Your task to perform on an android device: Open the calendar app, open the side menu, and click the "Day" option Image 0: 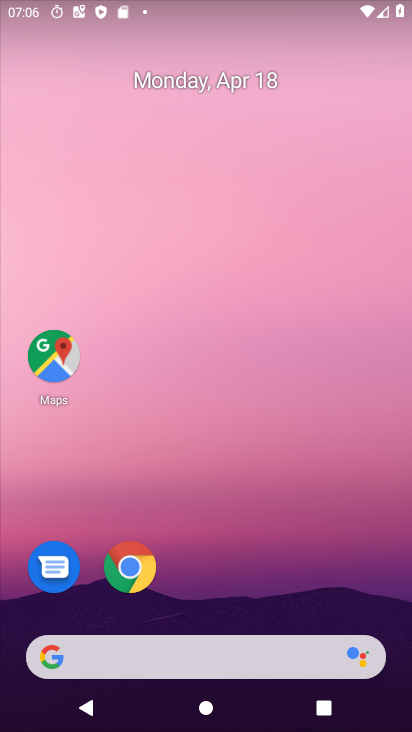
Step 0: drag from (307, 566) to (195, 64)
Your task to perform on an android device: Open the calendar app, open the side menu, and click the "Day" option Image 1: 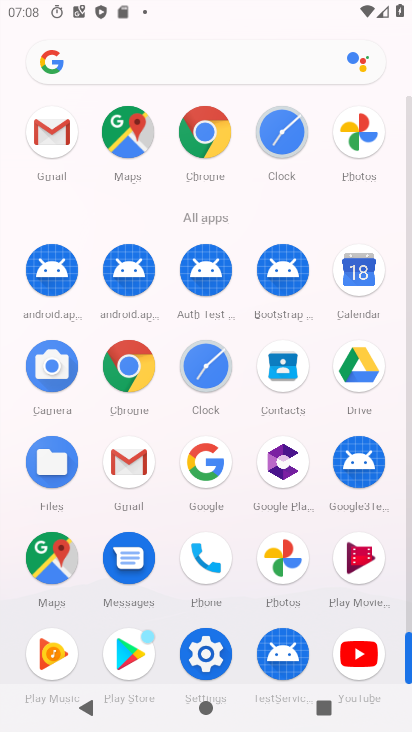
Step 1: click (366, 271)
Your task to perform on an android device: Open the calendar app, open the side menu, and click the "Day" option Image 2: 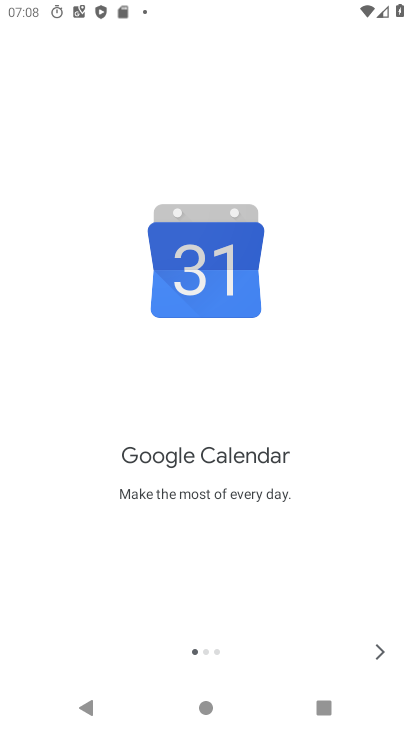
Step 2: click (381, 650)
Your task to perform on an android device: Open the calendar app, open the side menu, and click the "Day" option Image 3: 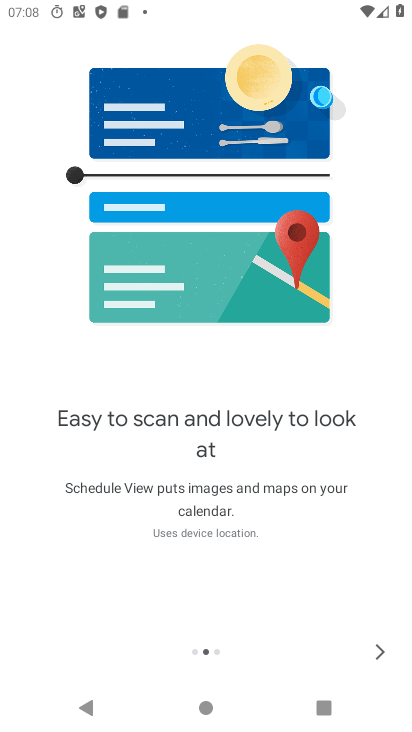
Step 3: click (369, 655)
Your task to perform on an android device: Open the calendar app, open the side menu, and click the "Day" option Image 4: 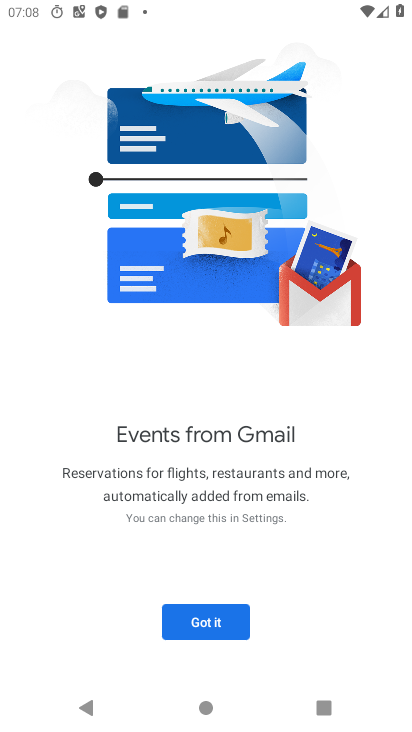
Step 4: click (194, 638)
Your task to perform on an android device: Open the calendar app, open the side menu, and click the "Day" option Image 5: 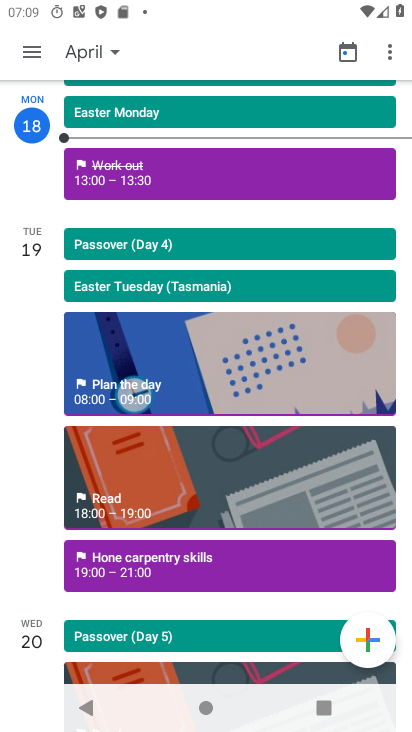
Step 5: click (18, 49)
Your task to perform on an android device: Open the calendar app, open the side menu, and click the "Day" option Image 6: 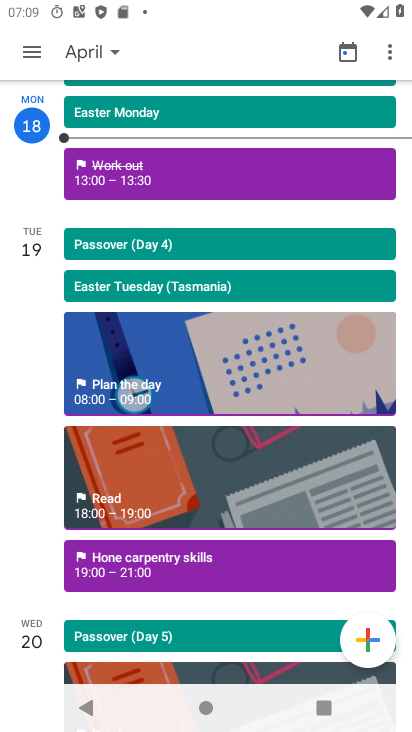
Step 6: click (50, 49)
Your task to perform on an android device: Open the calendar app, open the side menu, and click the "Day" option Image 7: 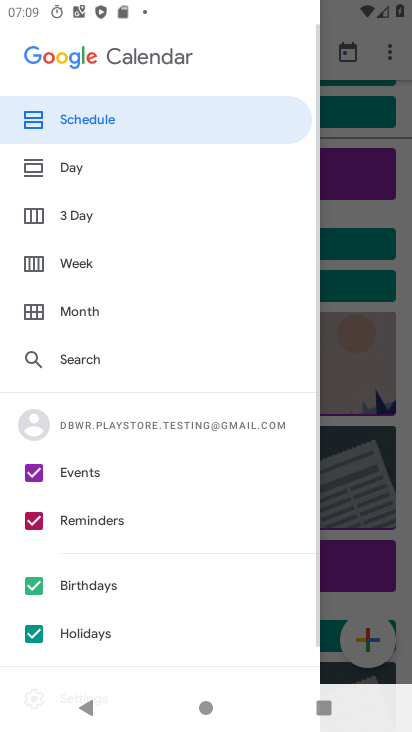
Step 7: click (60, 175)
Your task to perform on an android device: Open the calendar app, open the side menu, and click the "Day" option Image 8: 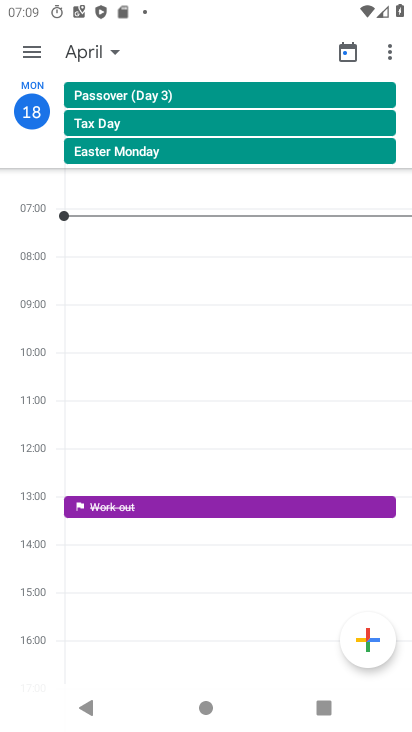
Step 8: task complete